Your task to perform on an android device: What's on my calendar tomorrow? Image 0: 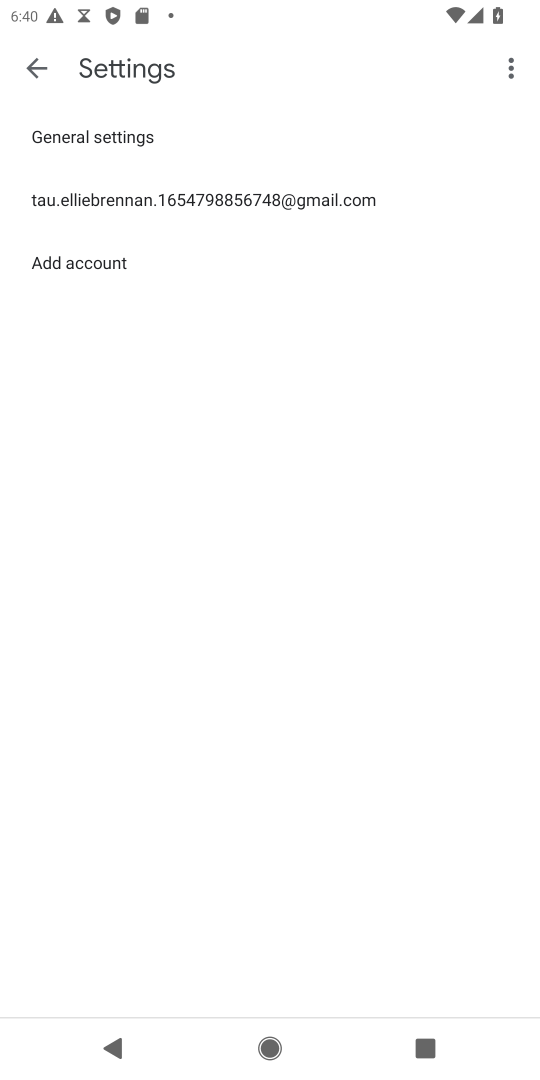
Step 0: press home button
Your task to perform on an android device: What's on my calendar tomorrow? Image 1: 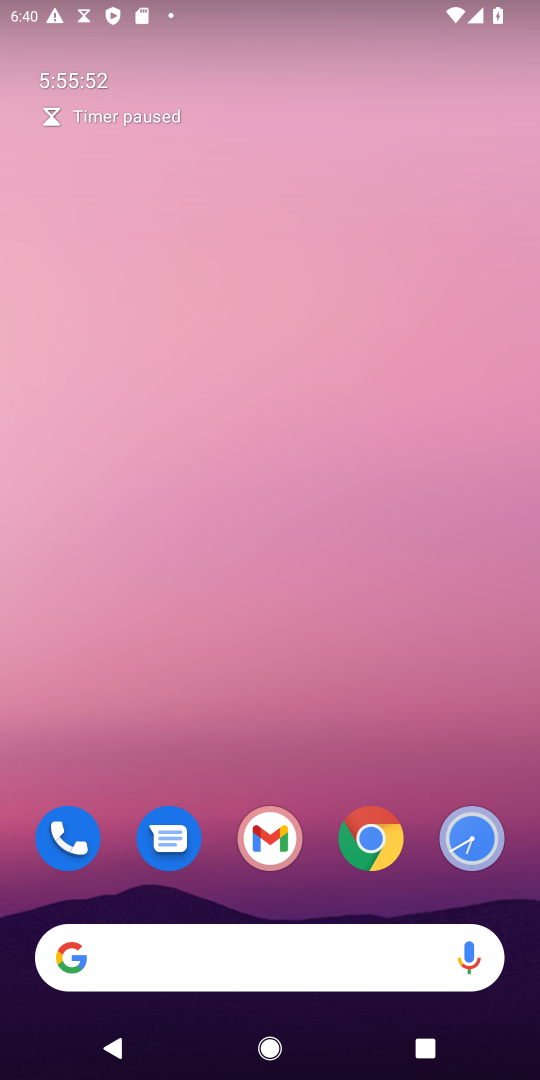
Step 1: drag from (240, 960) to (392, 61)
Your task to perform on an android device: What's on my calendar tomorrow? Image 2: 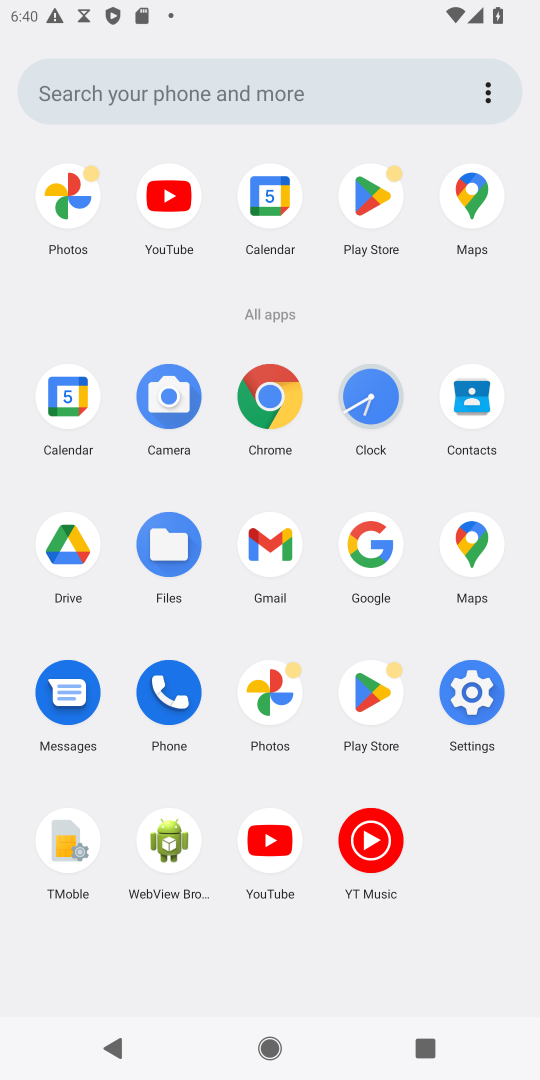
Step 2: click (59, 393)
Your task to perform on an android device: What's on my calendar tomorrow? Image 3: 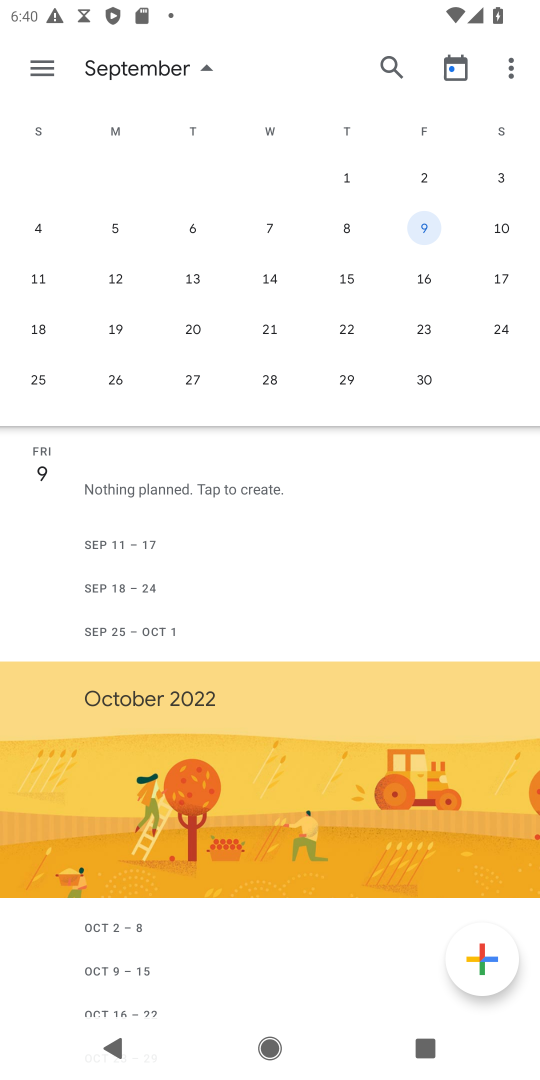
Step 3: click (491, 221)
Your task to perform on an android device: What's on my calendar tomorrow? Image 4: 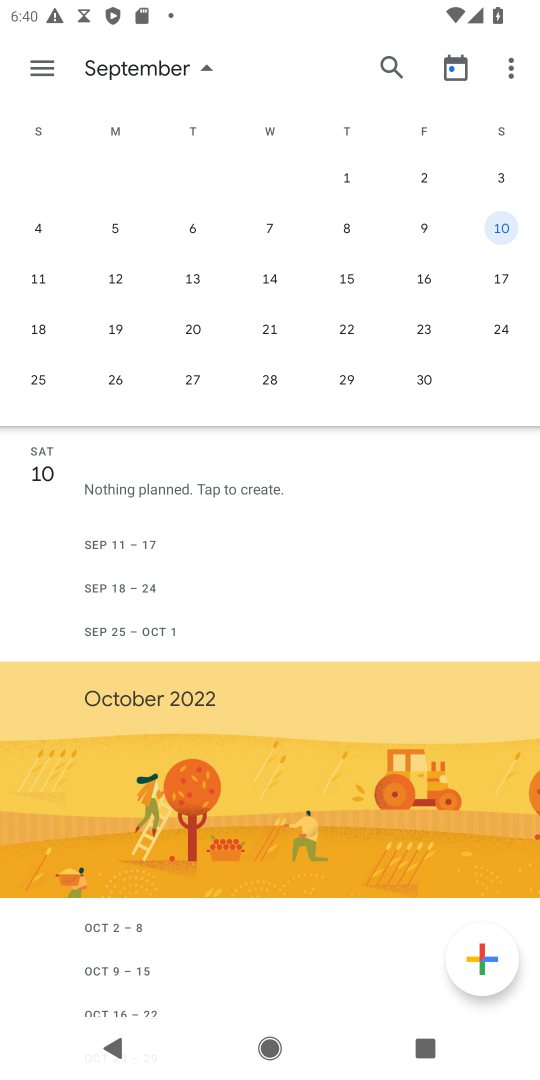
Step 4: click (497, 225)
Your task to perform on an android device: What's on my calendar tomorrow? Image 5: 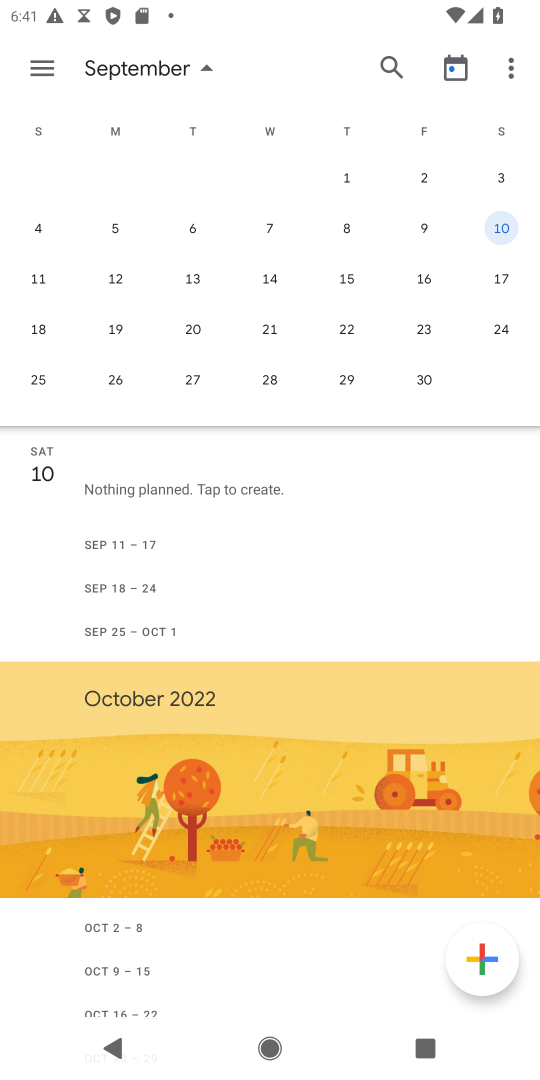
Step 5: task complete